Your task to perform on an android device: turn off priority inbox in the gmail app Image 0: 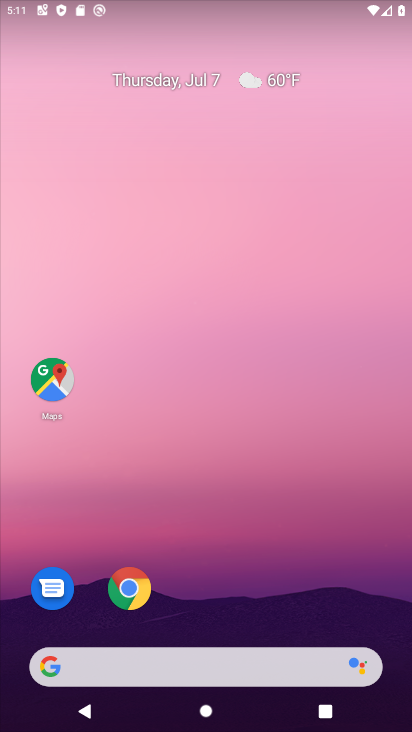
Step 0: drag from (207, 496) to (245, 68)
Your task to perform on an android device: turn off priority inbox in the gmail app Image 1: 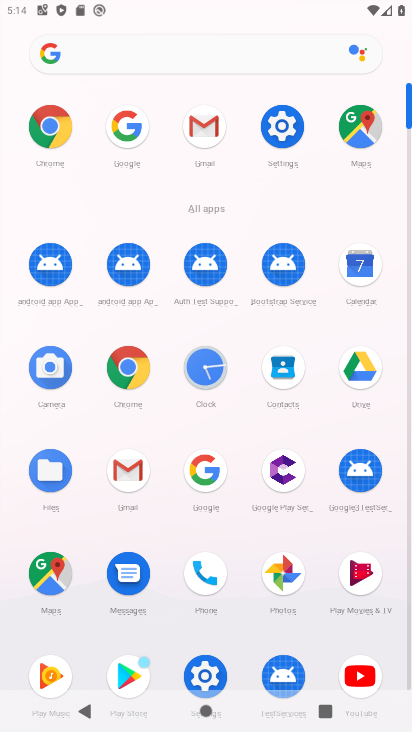
Step 1: click (218, 121)
Your task to perform on an android device: turn off priority inbox in the gmail app Image 2: 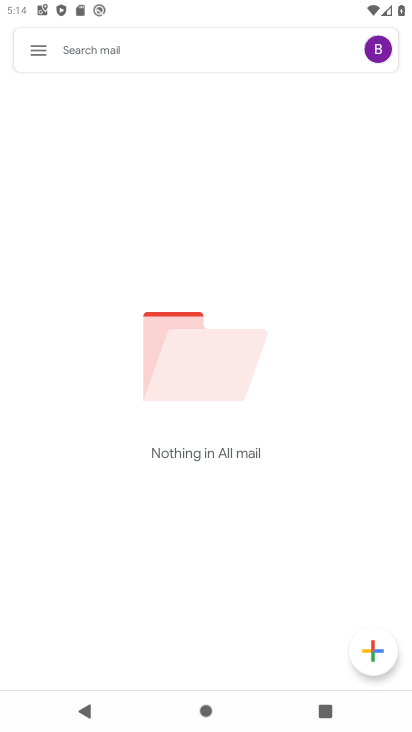
Step 2: click (29, 46)
Your task to perform on an android device: turn off priority inbox in the gmail app Image 3: 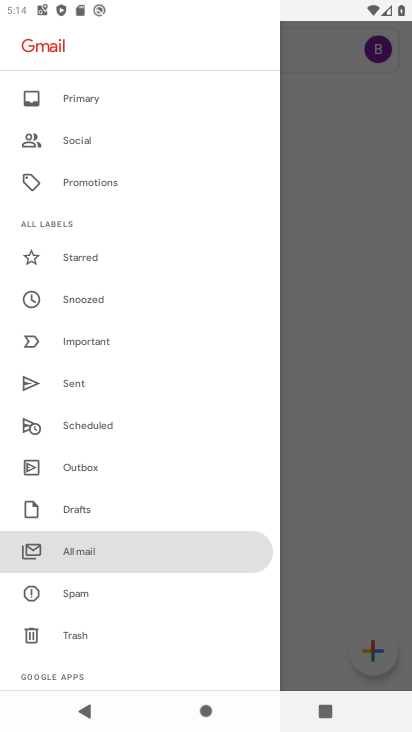
Step 3: drag from (101, 623) to (132, 83)
Your task to perform on an android device: turn off priority inbox in the gmail app Image 4: 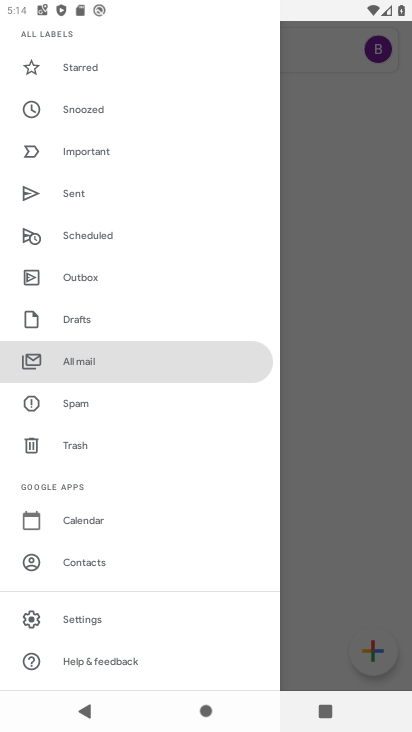
Step 4: click (90, 617)
Your task to perform on an android device: turn off priority inbox in the gmail app Image 5: 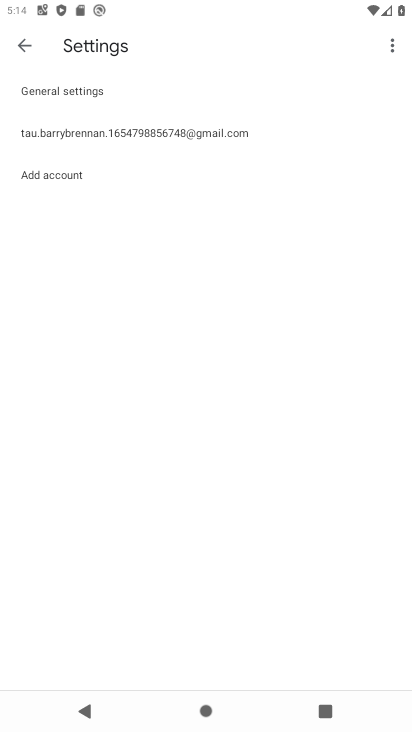
Step 5: click (87, 132)
Your task to perform on an android device: turn off priority inbox in the gmail app Image 6: 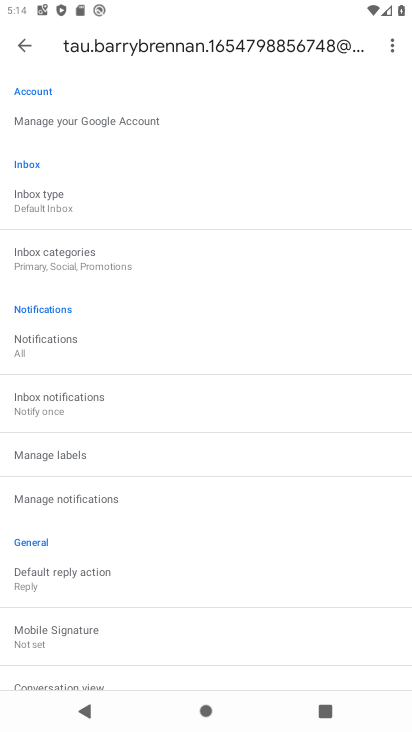
Step 6: click (89, 204)
Your task to perform on an android device: turn off priority inbox in the gmail app Image 7: 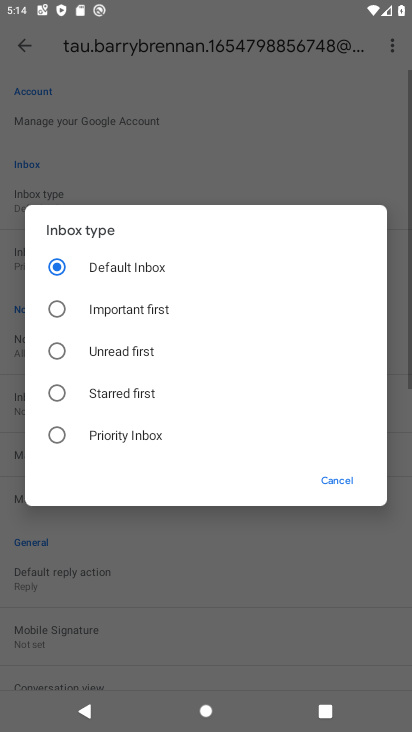
Step 7: task complete